Your task to perform on an android device: open chrome privacy settings Image 0: 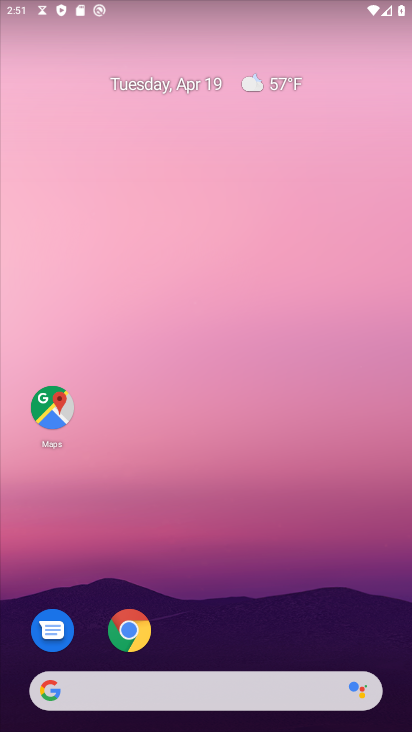
Step 0: click (127, 637)
Your task to perform on an android device: open chrome privacy settings Image 1: 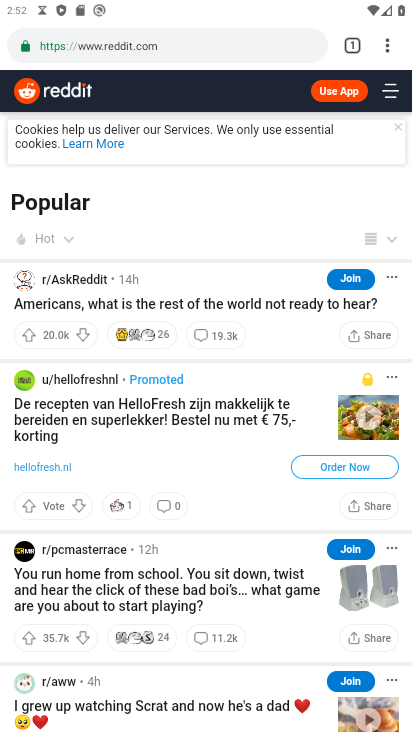
Step 1: drag from (391, 43) to (218, 589)
Your task to perform on an android device: open chrome privacy settings Image 2: 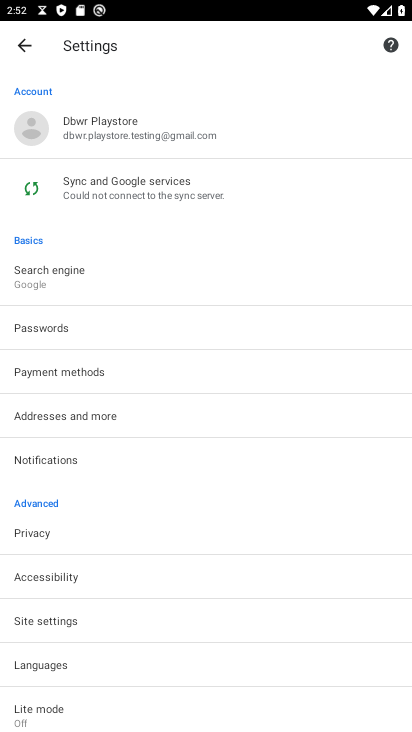
Step 2: click (83, 531)
Your task to perform on an android device: open chrome privacy settings Image 3: 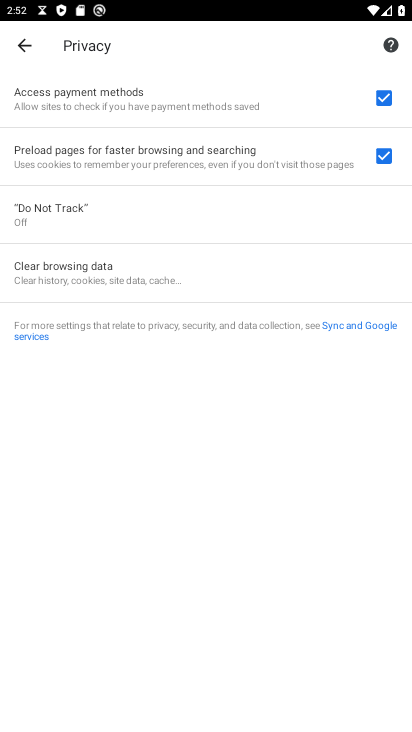
Step 3: task complete